Your task to perform on an android device: check google app version Image 0: 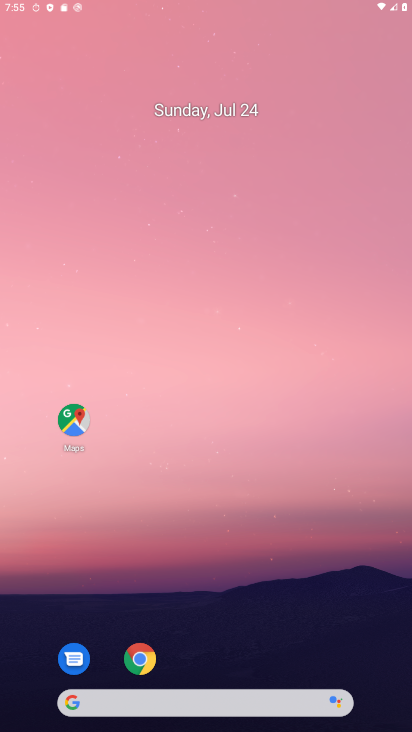
Step 0: drag from (299, 488) to (328, 200)
Your task to perform on an android device: check google app version Image 1: 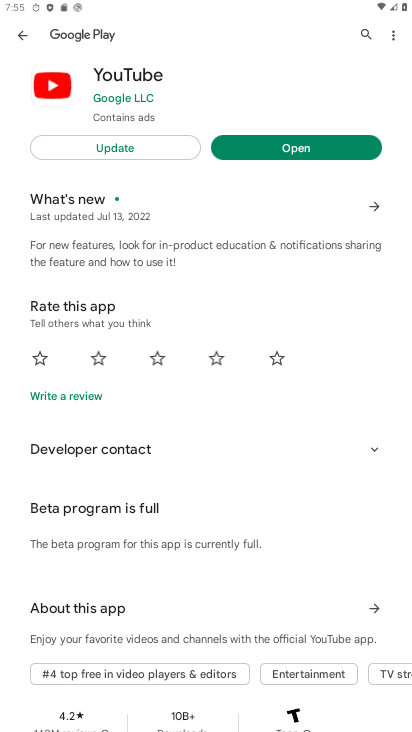
Step 1: press back button
Your task to perform on an android device: check google app version Image 2: 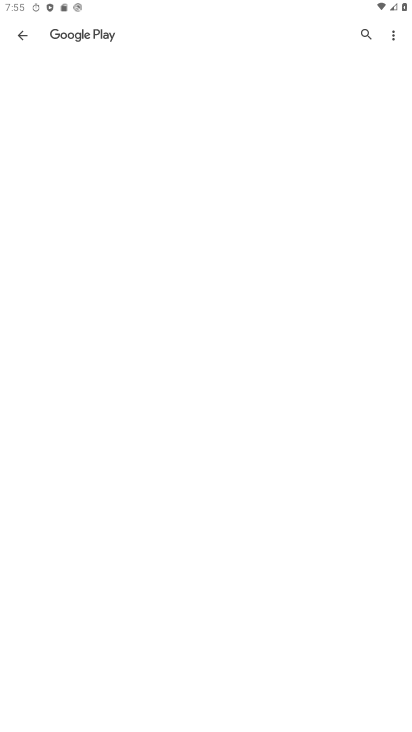
Step 2: press back button
Your task to perform on an android device: check google app version Image 3: 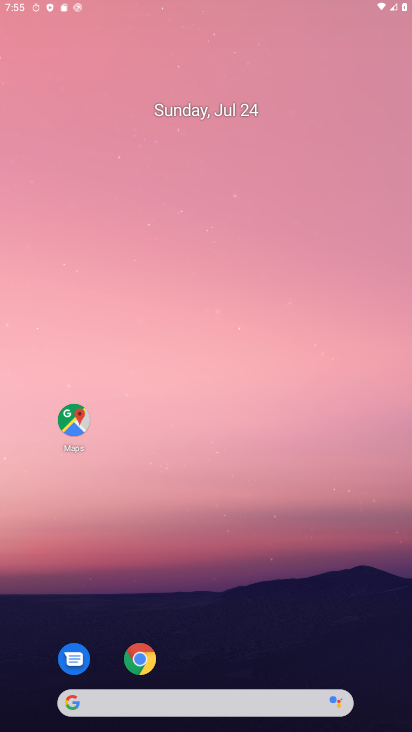
Step 3: press back button
Your task to perform on an android device: check google app version Image 4: 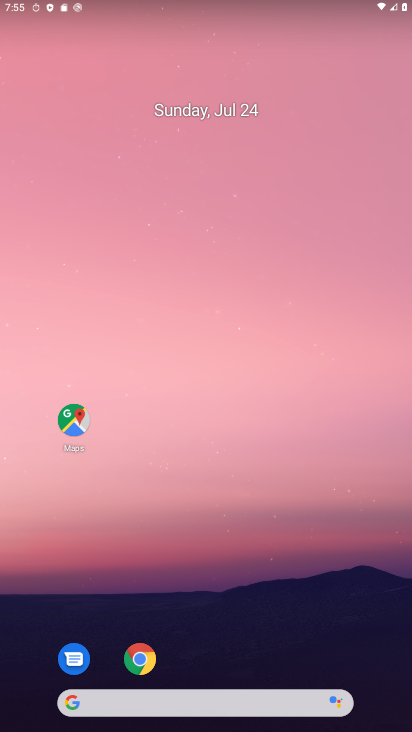
Step 4: drag from (256, 629) to (396, 124)
Your task to perform on an android device: check google app version Image 5: 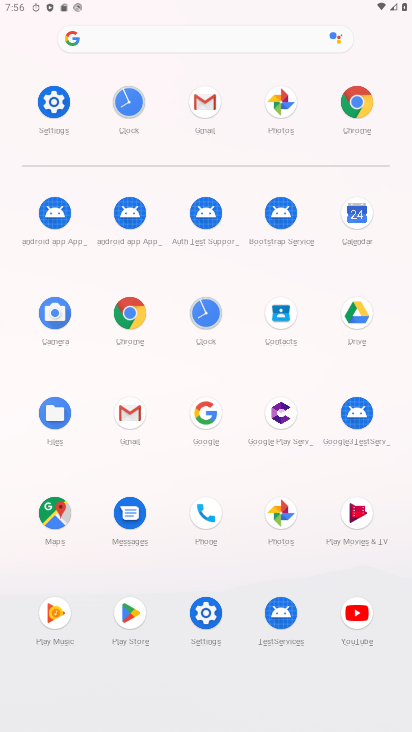
Step 5: click (206, 416)
Your task to perform on an android device: check google app version Image 6: 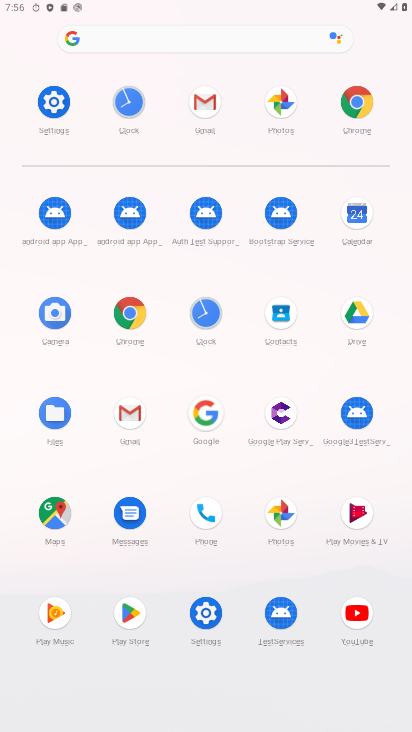
Step 6: click (206, 416)
Your task to perform on an android device: check google app version Image 7: 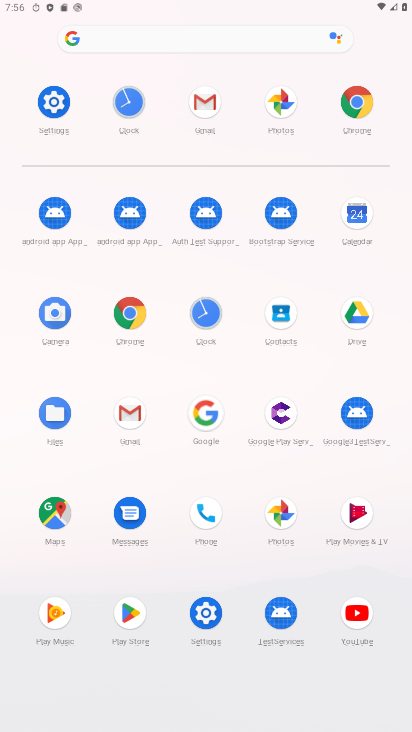
Step 7: click (206, 416)
Your task to perform on an android device: check google app version Image 8: 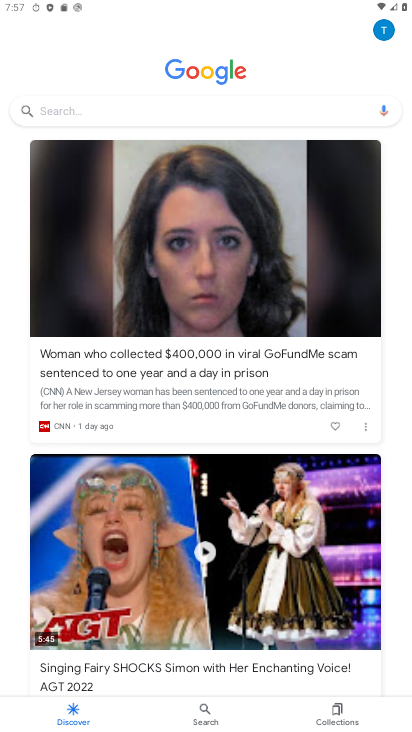
Step 8: drag from (318, 109) to (307, 681)
Your task to perform on an android device: check google app version Image 9: 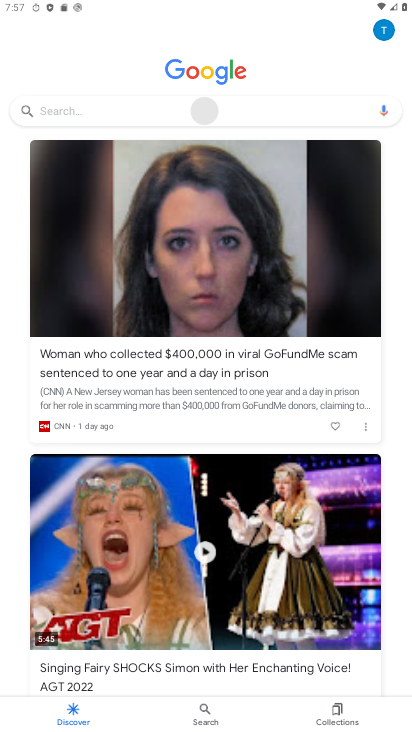
Step 9: drag from (206, 229) to (210, 717)
Your task to perform on an android device: check google app version Image 10: 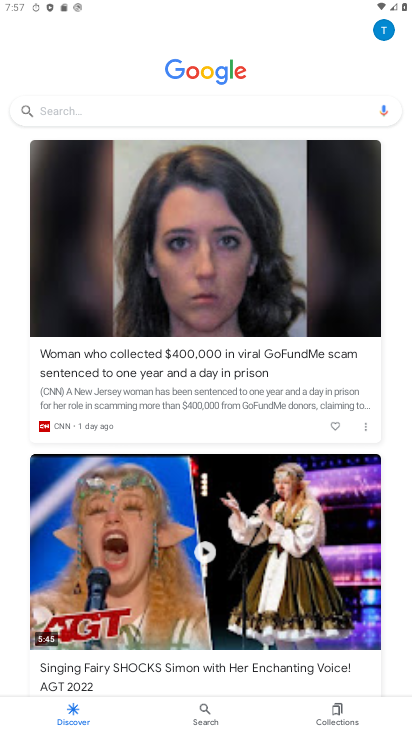
Step 10: drag from (228, 124) to (307, 555)
Your task to perform on an android device: check google app version Image 11: 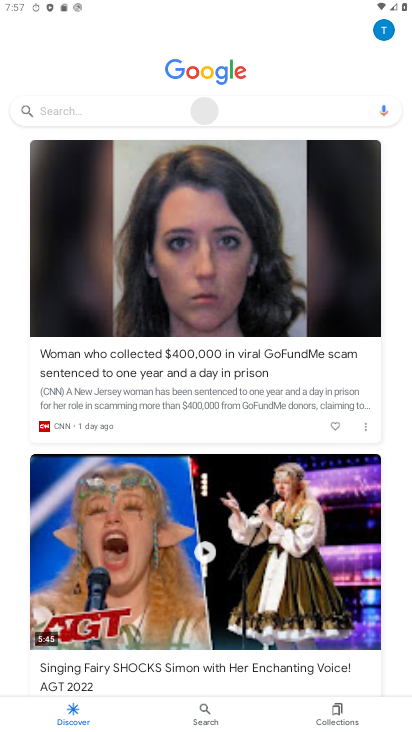
Step 11: drag from (292, 193) to (317, 388)
Your task to perform on an android device: check google app version Image 12: 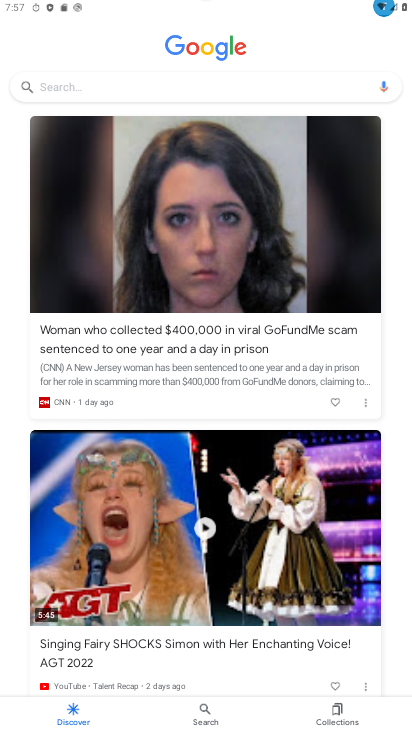
Step 12: drag from (316, 82) to (332, 305)
Your task to perform on an android device: check google app version Image 13: 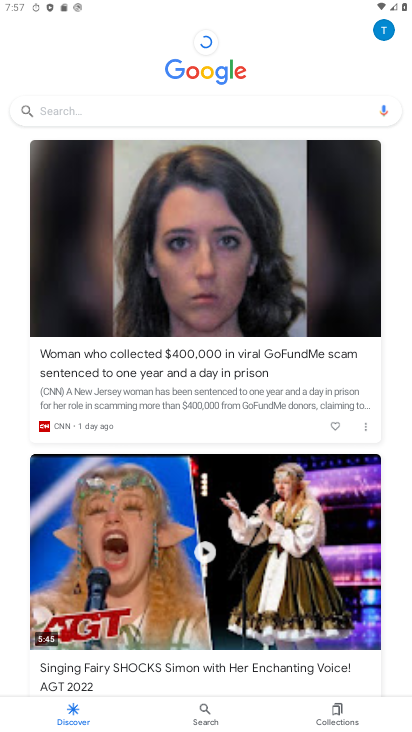
Step 13: click (391, 33)
Your task to perform on an android device: check google app version Image 14: 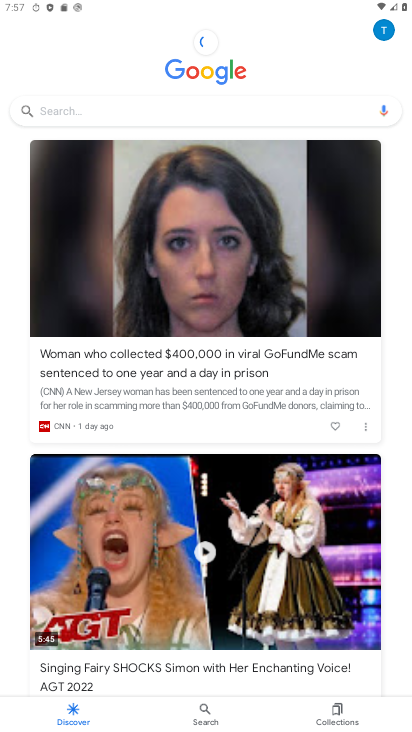
Step 14: click (389, 34)
Your task to perform on an android device: check google app version Image 15: 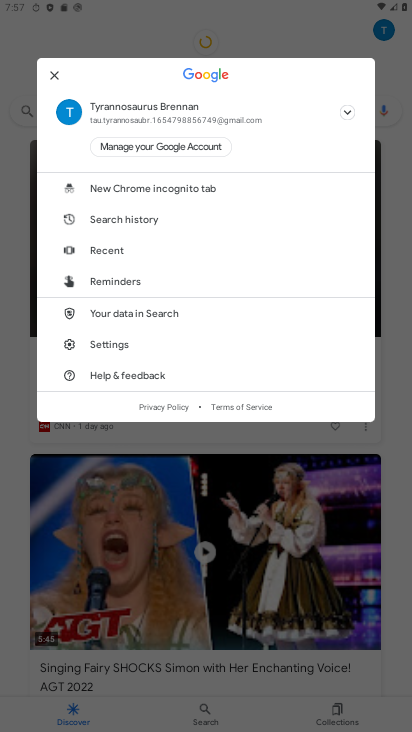
Step 15: click (384, 33)
Your task to perform on an android device: check google app version Image 16: 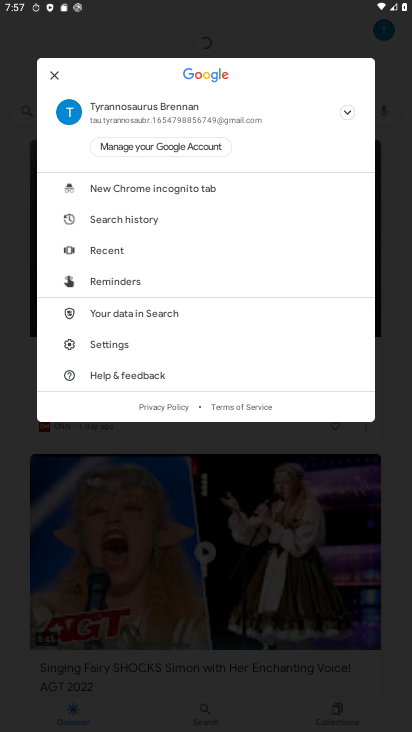
Step 16: click (99, 342)
Your task to perform on an android device: check google app version Image 17: 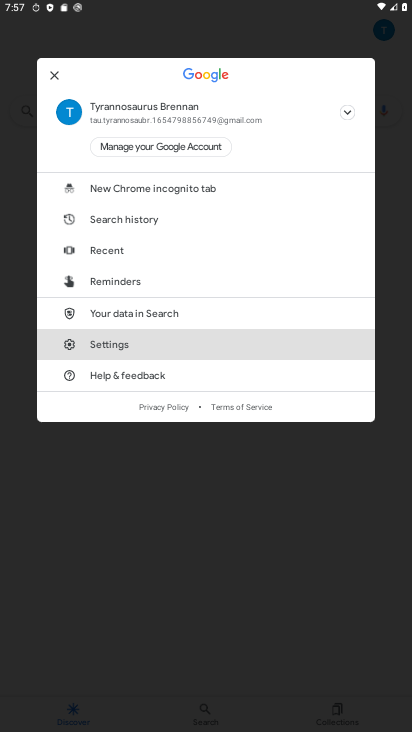
Step 17: click (108, 339)
Your task to perform on an android device: check google app version Image 18: 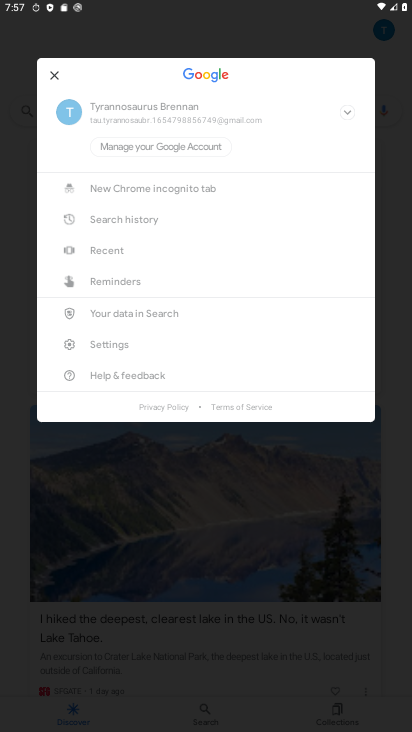
Step 18: click (114, 337)
Your task to perform on an android device: check google app version Image 19: 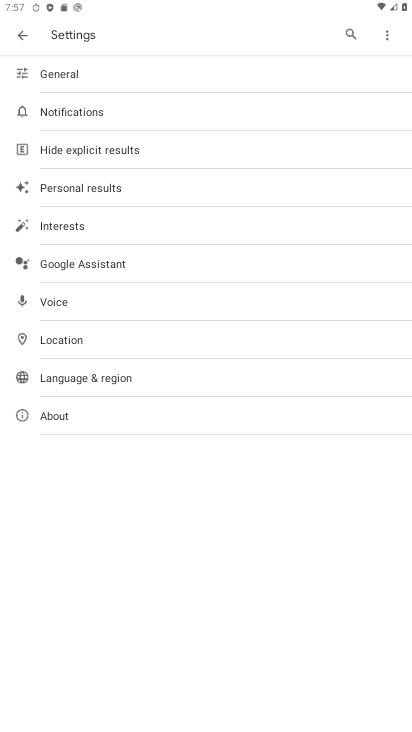
Step 19: click (78, 420)
Your task to perform on an android device: check google app version Image 20: 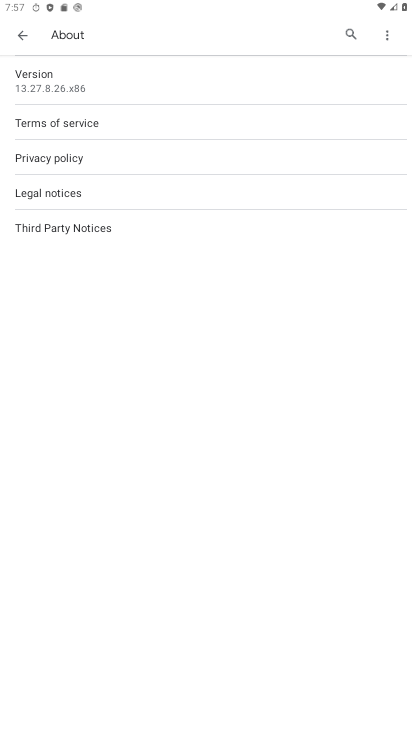
Step 20: click (34, 62)
Your task to perform on an android device: check google app version Image 21: 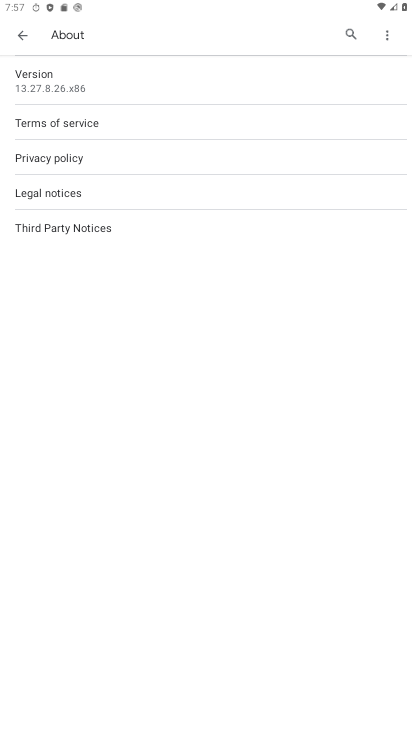
Step 21: task complete